Your task to perform on an android device: Open calendar and show me the second week of next month Image 0: 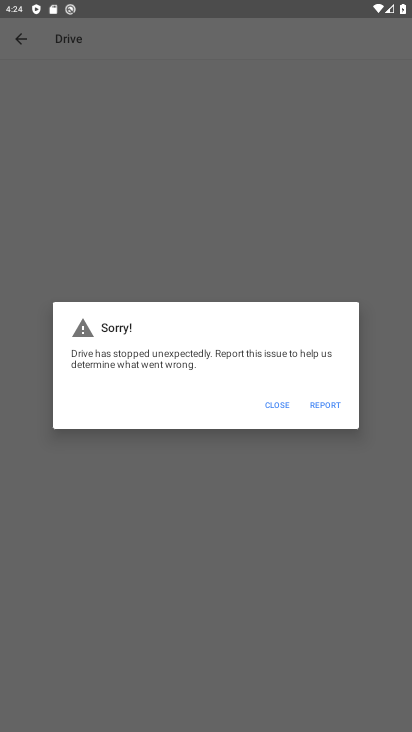
Step 0: press back button
Your task to perform on an android device: Open calendar and show me the second week of next month Image 1: 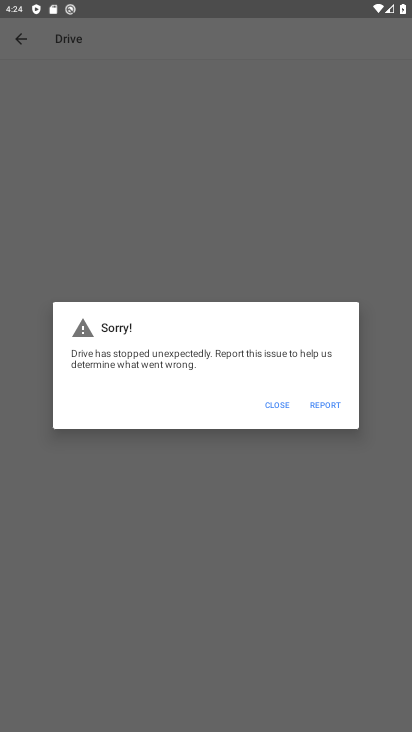
Step 1: press back button
Your task to perform on an android device: Open calendar and show me the second week of next month Image 2: 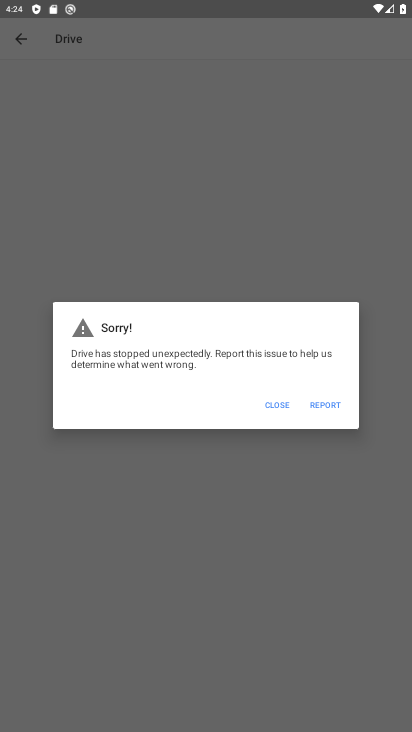
Step 2: press back button
Your task to perform on an android device: Open calendar and show me the second week of next month Image 3: 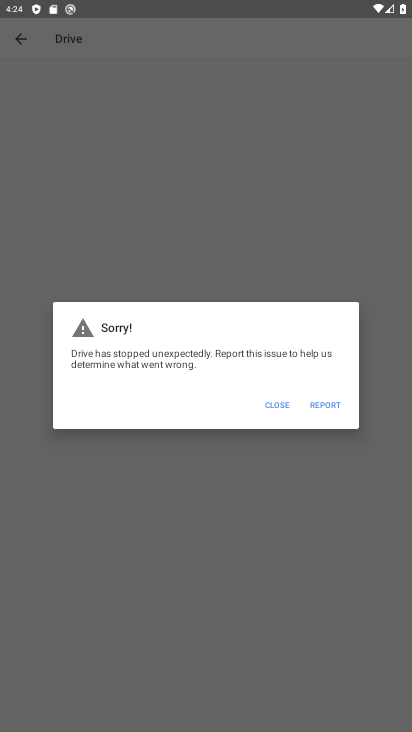
Step 3: press home button
Your task to perform on an android device: Open calendar and show me the second week of next month Image 4: 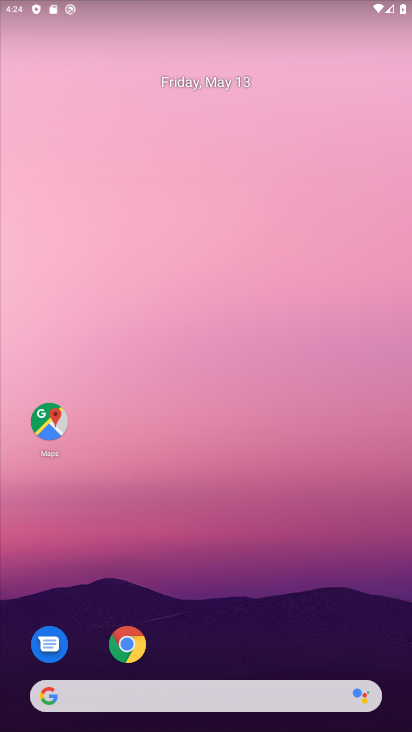
Step 4: drag from (172, 637) to (275, 19)
Your task to perform on an android device: Open calendar and show me the second week of next month Image 5: 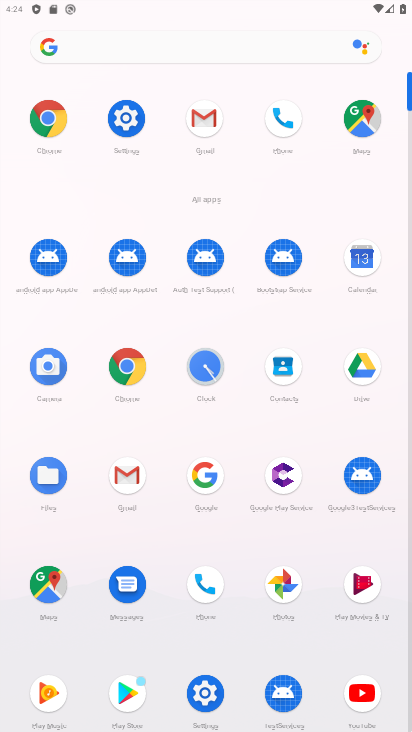
Step 5: click (345, 269)
Your task to perform on an android device: Open calendar and show me the second week of next month Image 6: 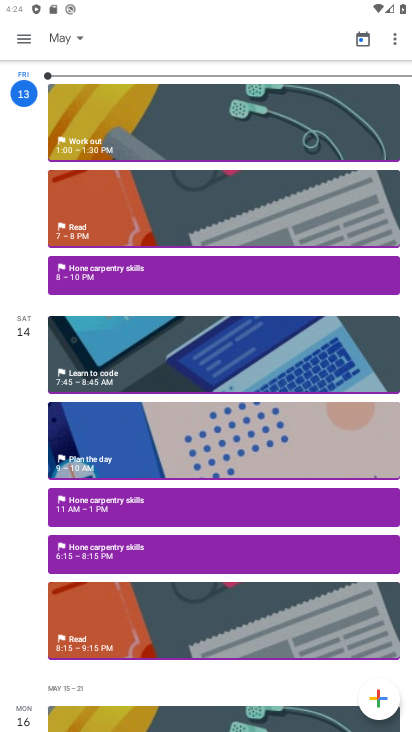
Step 6: click (77, 44)
Your task to perform on an android device: Open calendar and show me the second week of next month Image 7: 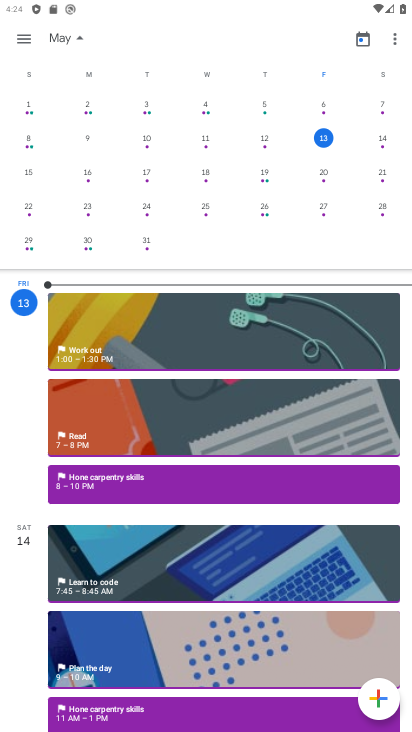
Step 7: drag from (372, 152) to (66, 134)
Your task to perform on an android device: Open calendar and show me the second week of next month Image 8: 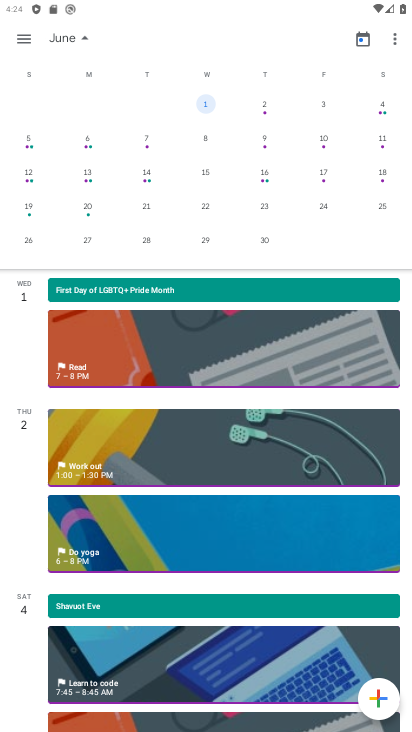
Step 8: click (87, 141)
Your task to perform on an android device: Open calendar and show me the second week of next month Image 9: 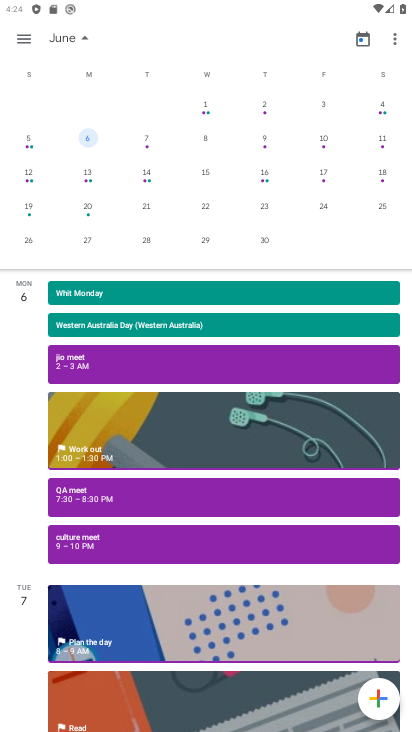
Step 9: task complete